Your task to perform on an android device: turn off data saver in the chrome app Image 0: 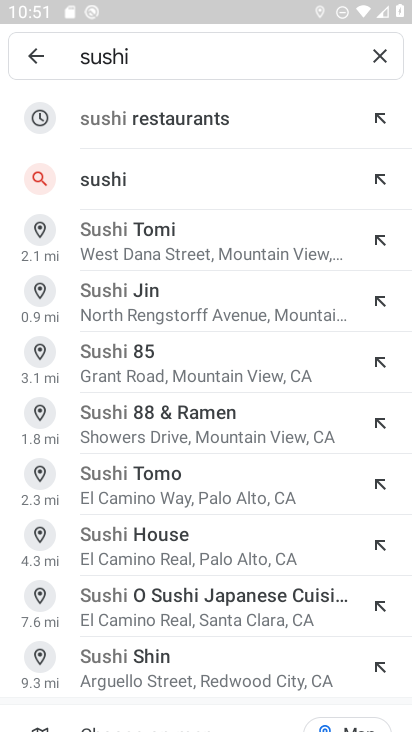
Step 0: press home button
Your task to perform on an android device: turn off data saver in the chrome app Image 1: 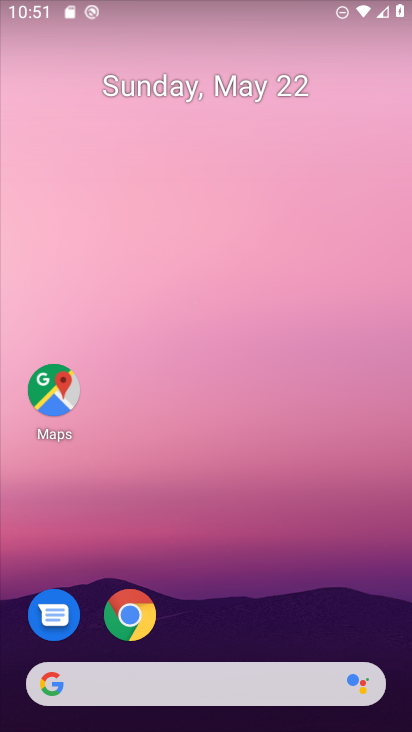
Step 1: click (131, 620)
Your task to perform on an android device: turn off data saver in the chrome app Image 2: 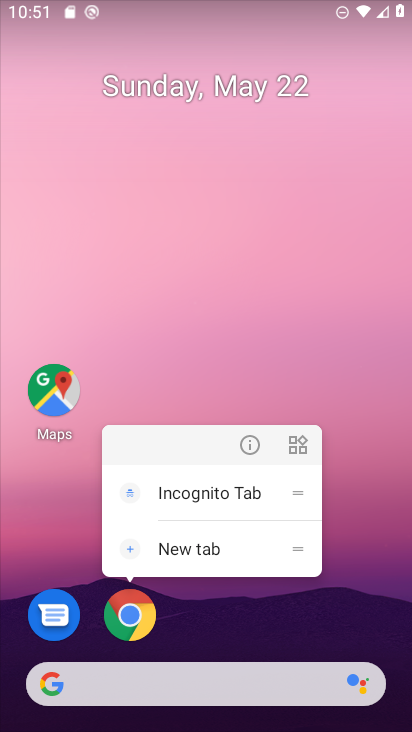
Step 2: click (123, 612)
Your task to perform on an android device: turn off data saver in the chrome app Image 3: 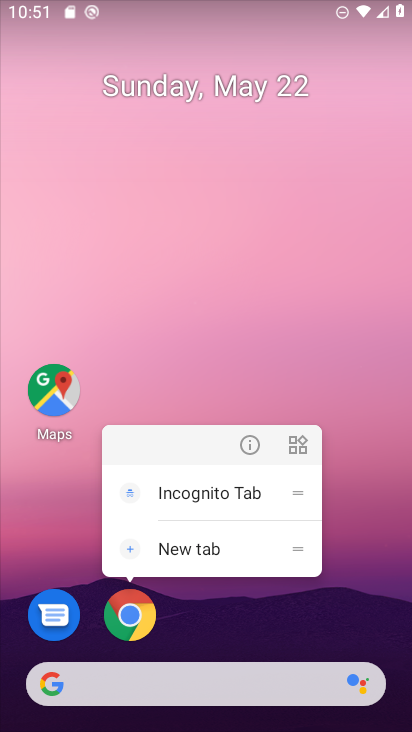
Step 3: click (133, 616)
Your task to perform on an android device: turn off data saver in the chrome app Image 4: 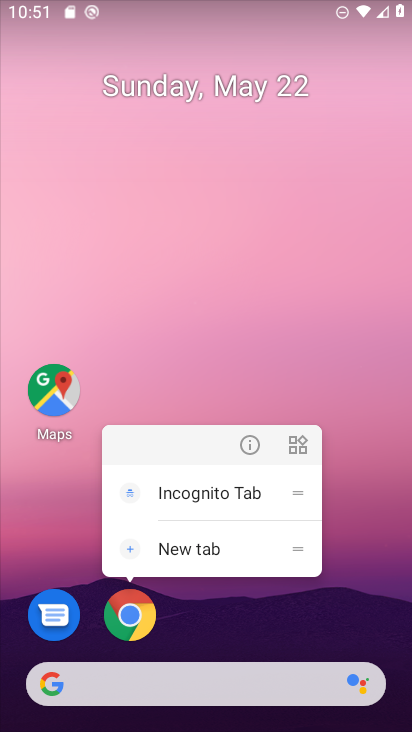
Step 4: drag from (355, 599) to (307, 84)
Your task to perform on an android device: turn off data saver in the chrome app Image 5: 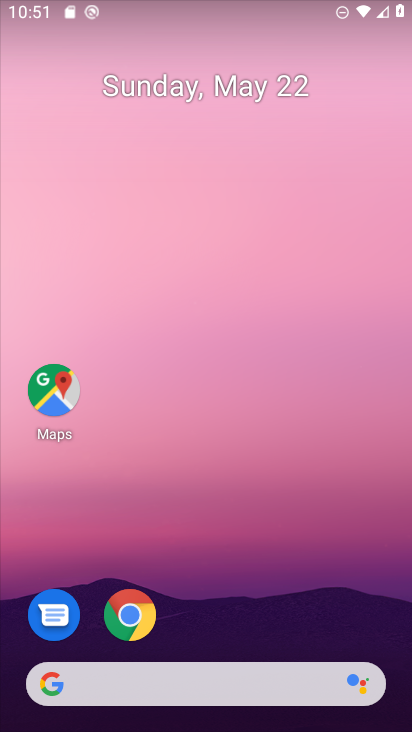
Step 5: drag from (251, 581) to (177, 51)
Your task to perform on an android device: turn off data saver in the chrome app Image 6: 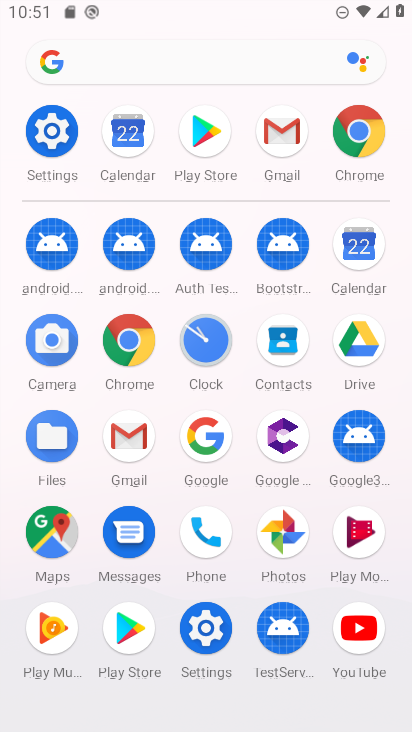
Step 6: click (136, 331)
Your task to perform on an android device: turn off data saver in the chrome app Image 7: 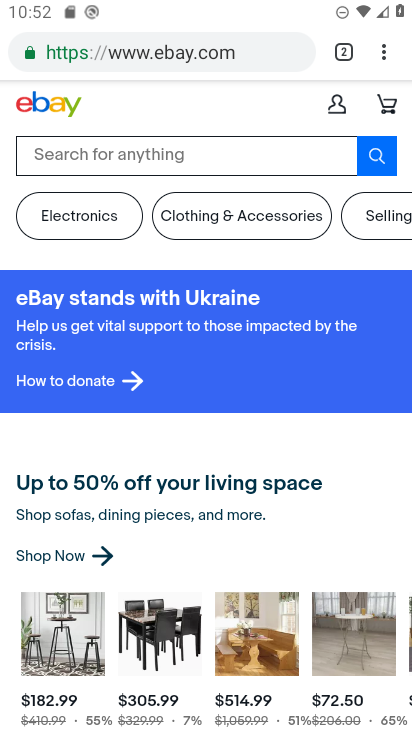
Step 7: drag from (381, 47) to (220, 584)
Your task to perform on an android device: turn off data saver in the chrome app Image 8: 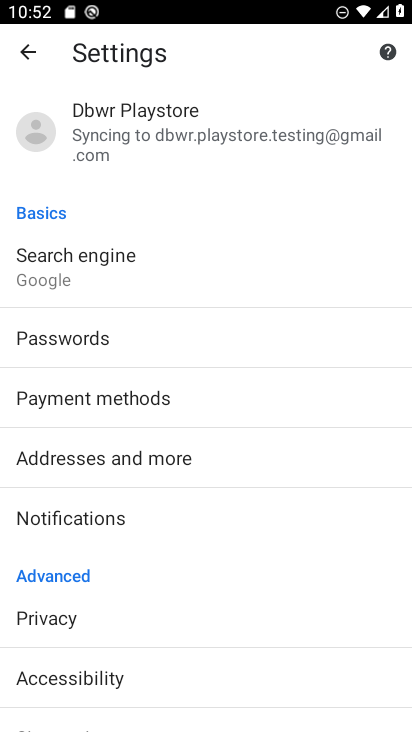
Step 8: drag from (92, 592) to (141, 185)
Your task to perform on an android device: turn off data saver in the chrome app Image 9: 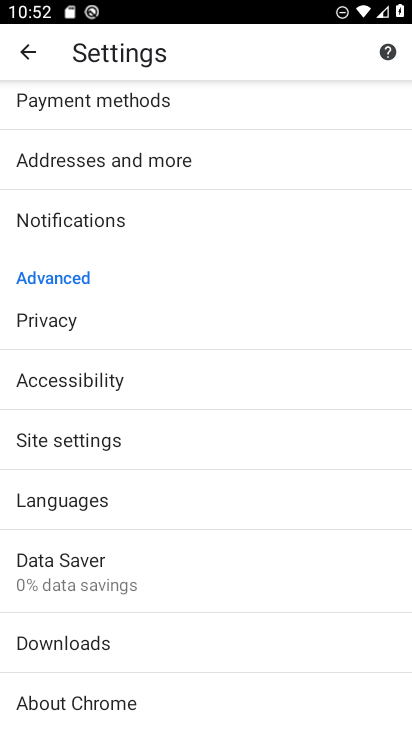
Step 9: click (52, 558)
Your task to perform on an android device: turn off data saver in the chrome app Image 10: 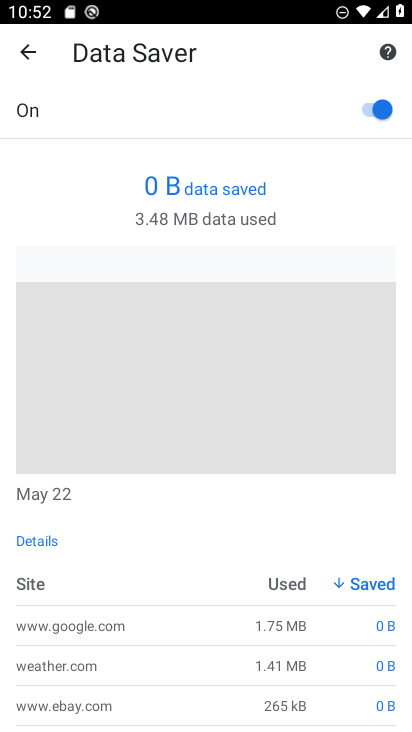
Step 10: click (386, 104)
Your task to perform on an android device: turn off data saver in the chrome app Image 11: 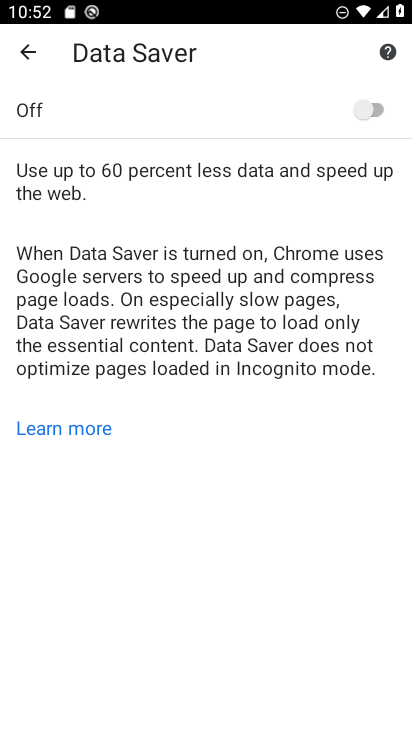
Step 11: task complete